Your task to perform on an android device: move an email to a new category in the gmail app Image 0: 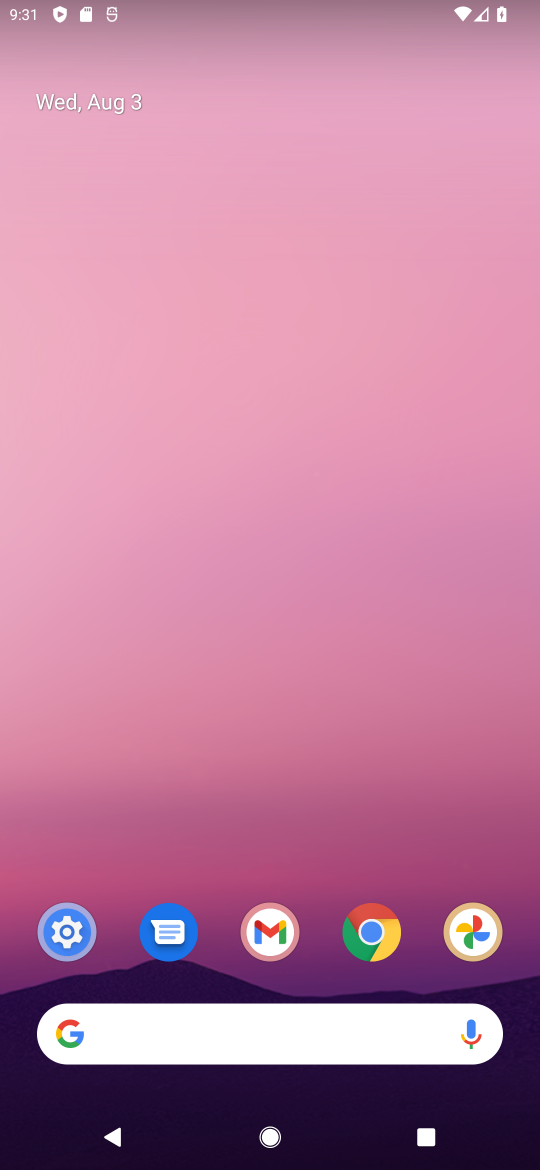
Step 0: drag from (414, 873) to (338, 63)
Your task to perform on an android device: move an email to a new category in the gmail app Image 1: 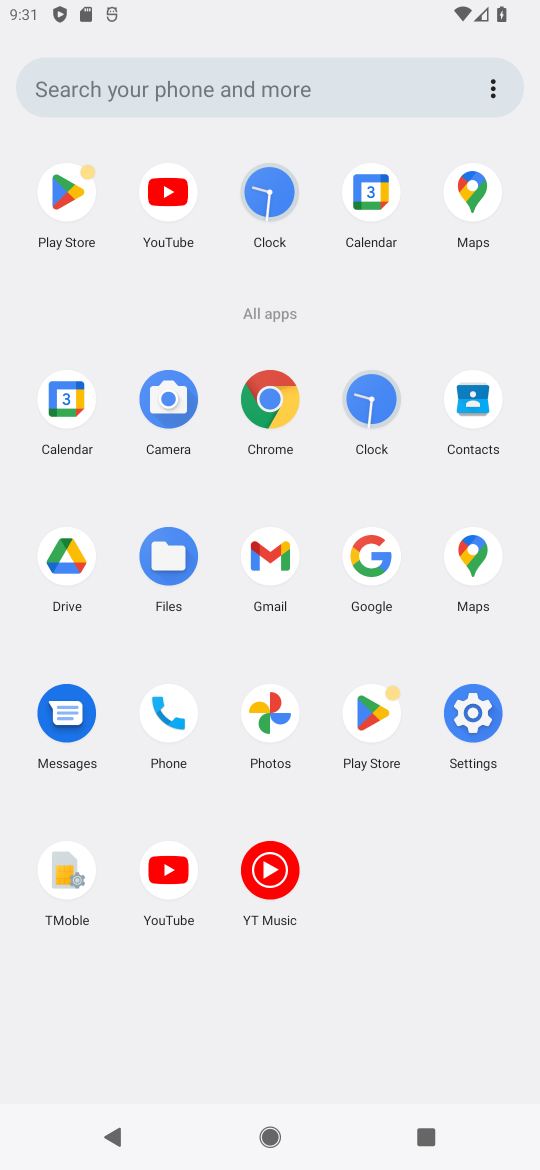
Step 1: click (263, 562)
Your task to perform on an android device: move an email to a new category in the gmail app Image 2: 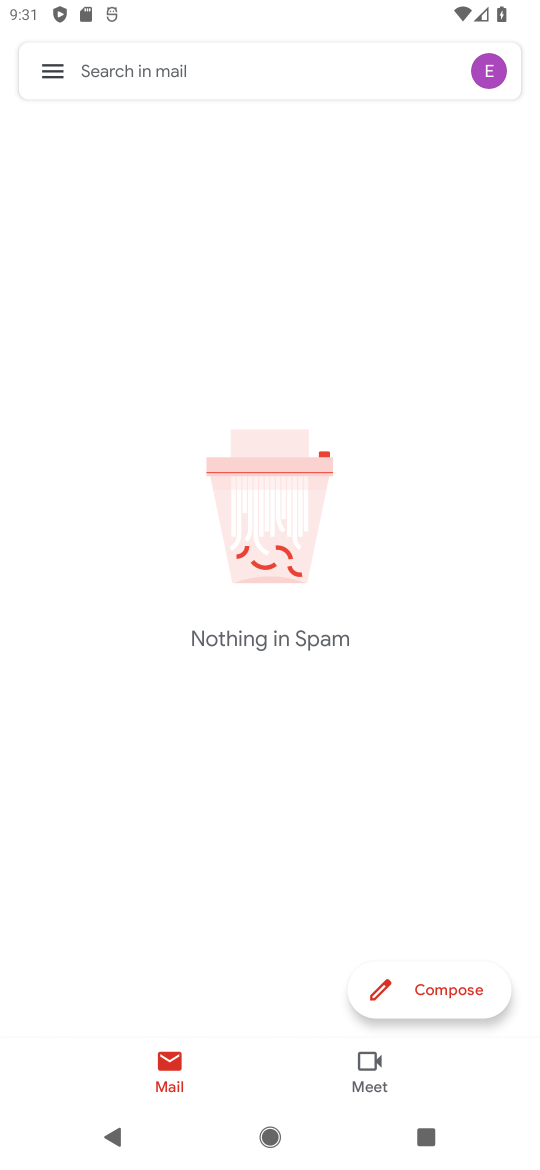
Step 2: click (47, 83)
Your task to perform on an android device: move an email to a new category in the gmail app Image 3: 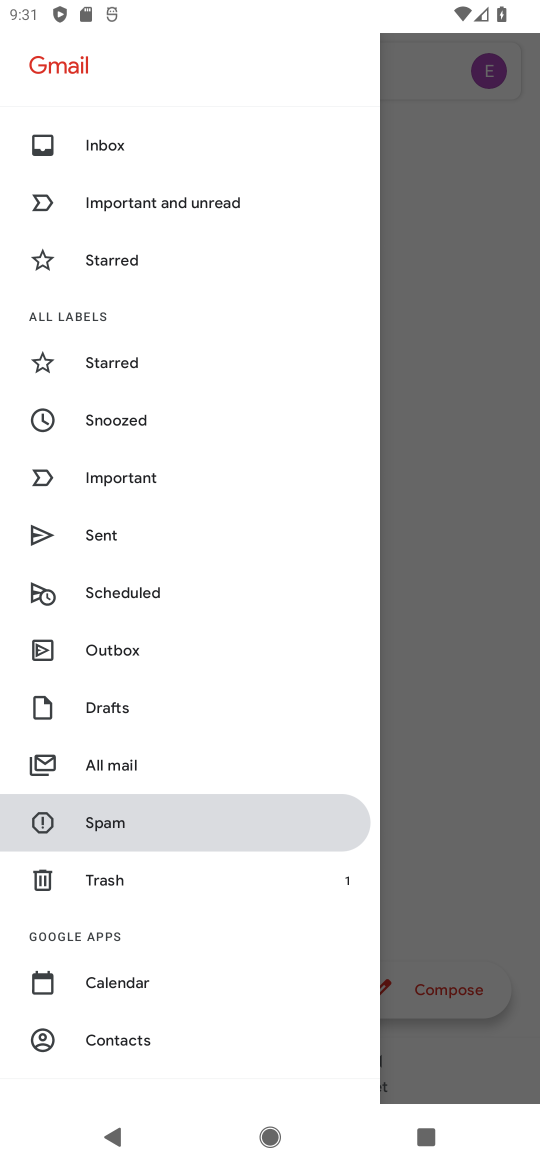
Step 3: click (156, 756)
Your task to perform on an android device: move an email to a new category in the gmail app Image 4: 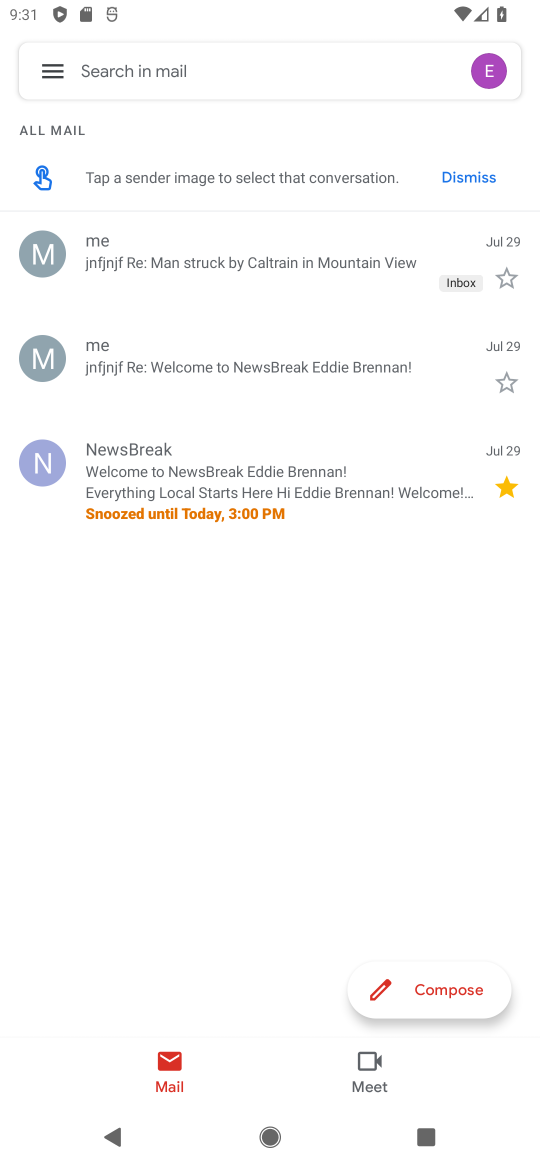
Step 4: click (261, 460)
Your task to perform on an android device: move an email to a new category in the gmail app Image 5: 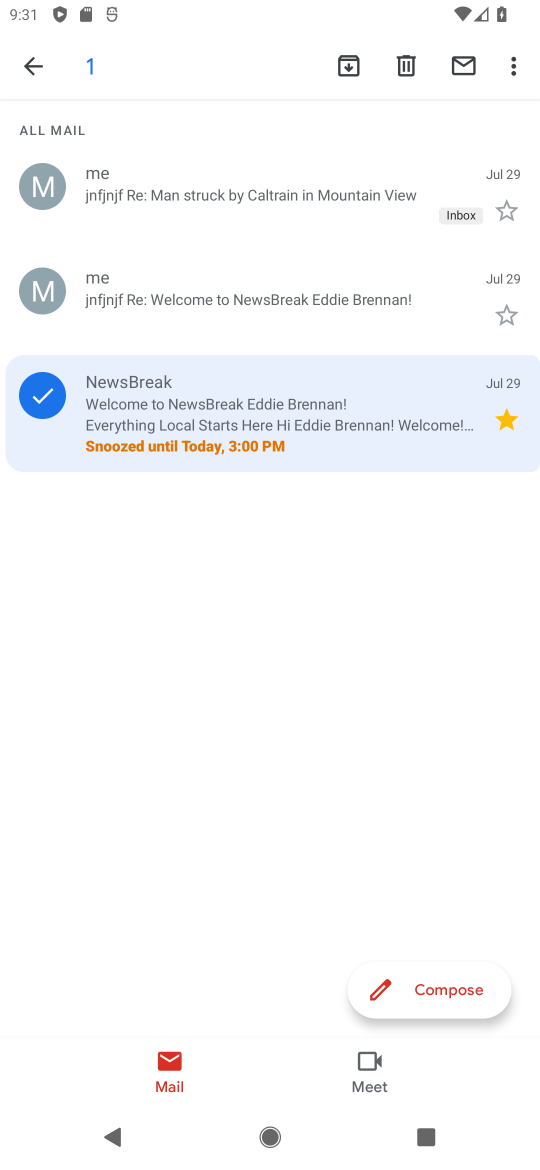
Step 5: click (521, 63)
Your task to perform on an android device: move an email to a new category in the gmail app Image 6: 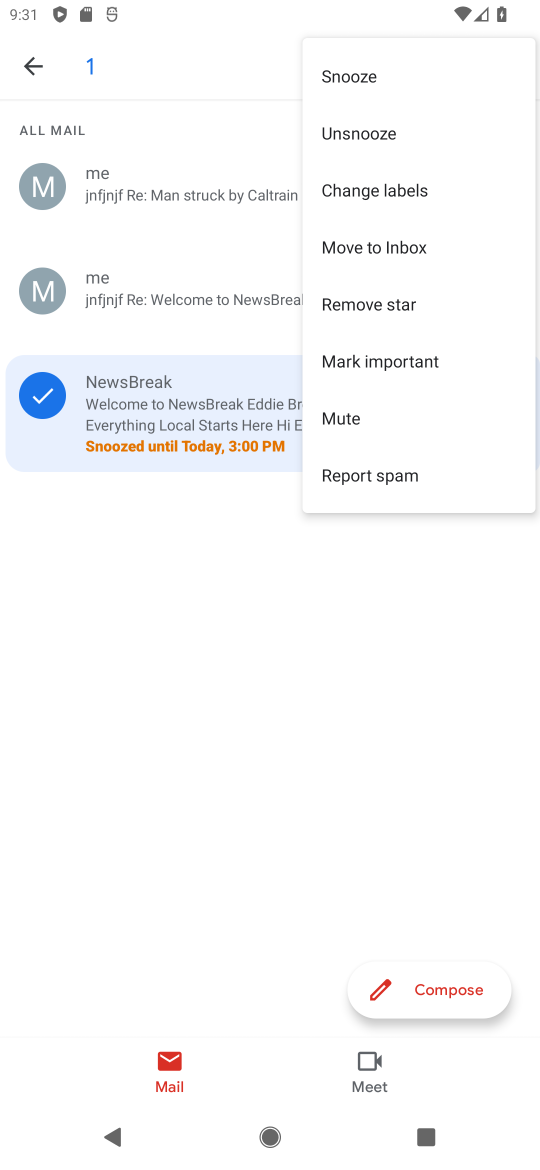
Step 6: click (457, 248)
Your task to perform on an android device: move an email to a new category in the gmail app Image 7: 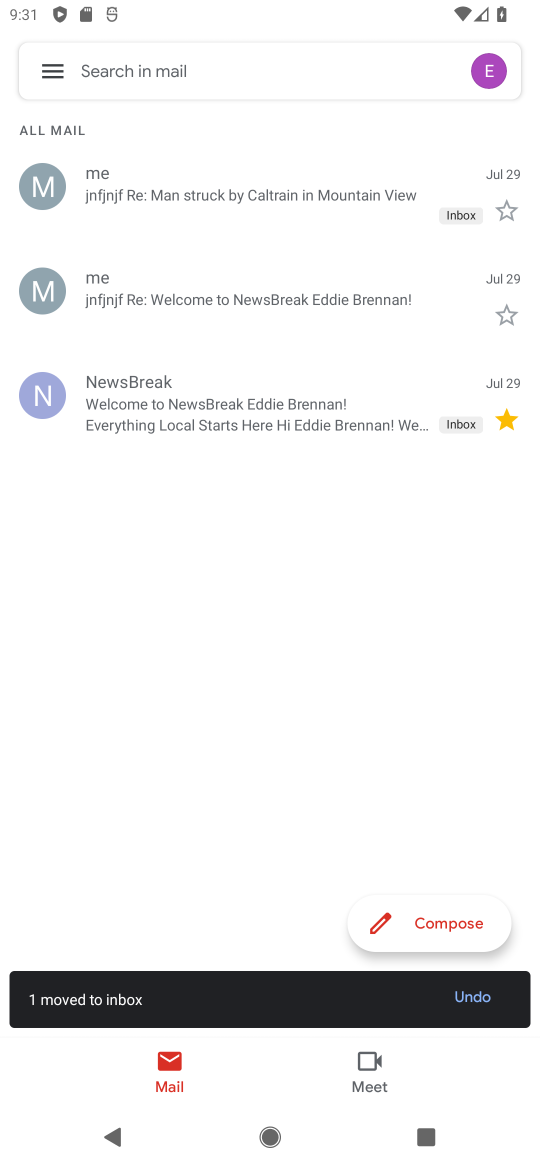
Step 7: task complete